Your task to perform on an android device: toggle sleep mode Image 0: 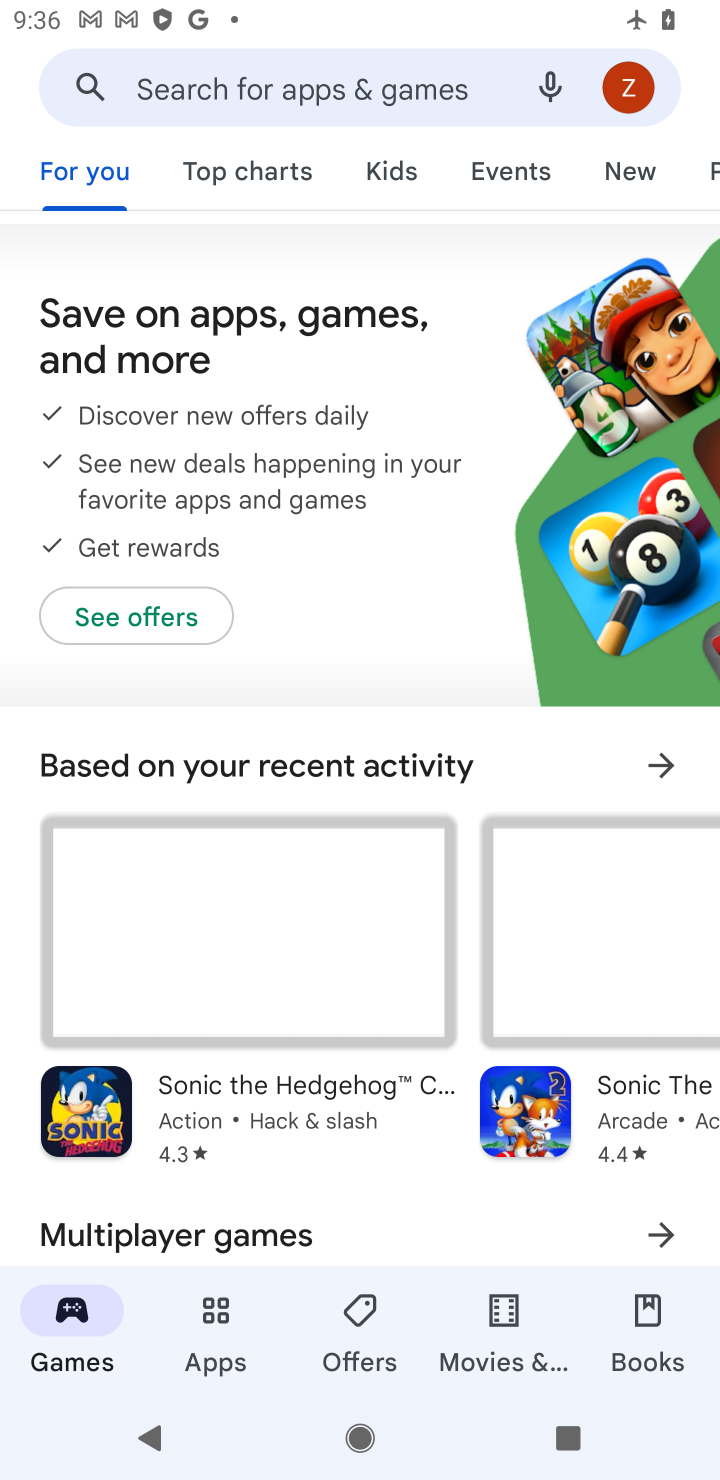
Step 0: press home button
Your task to perform on an android device: toggle sleep mode Image 1: 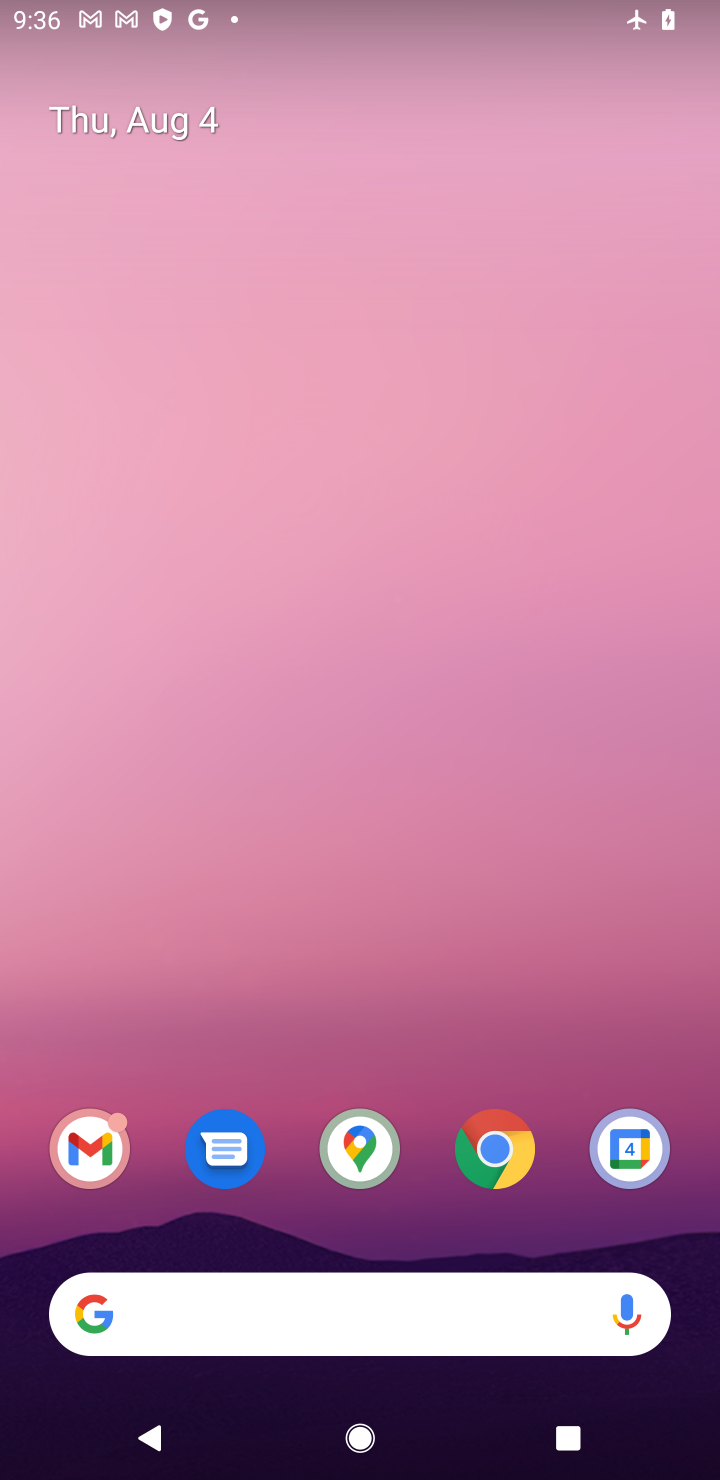
Step 1: drag from (577, 1217) to (500, 147)
Your task to perform on an android device: toggle sleep mode Image 2: 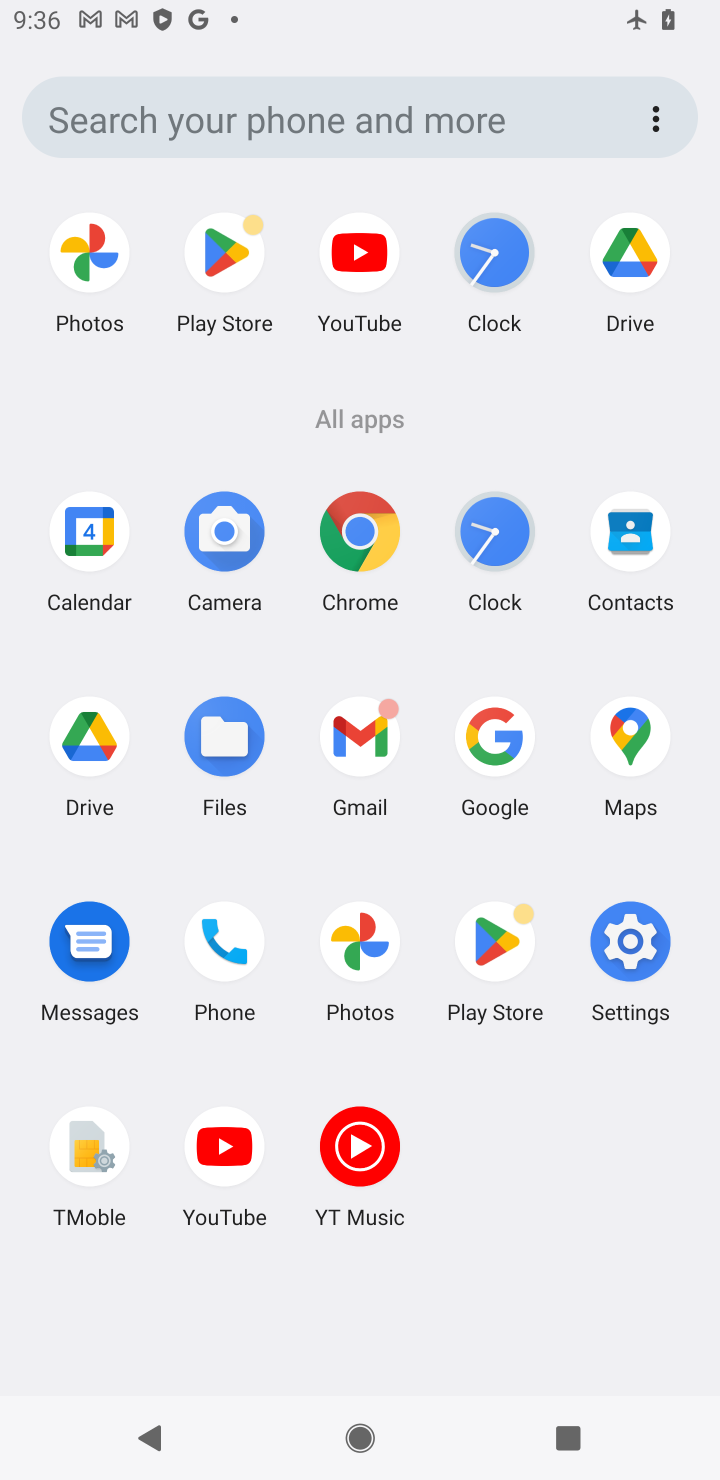
Step 2: click (626, 945)
Your task to perform on an android device: toggle sleep mode Image 3: 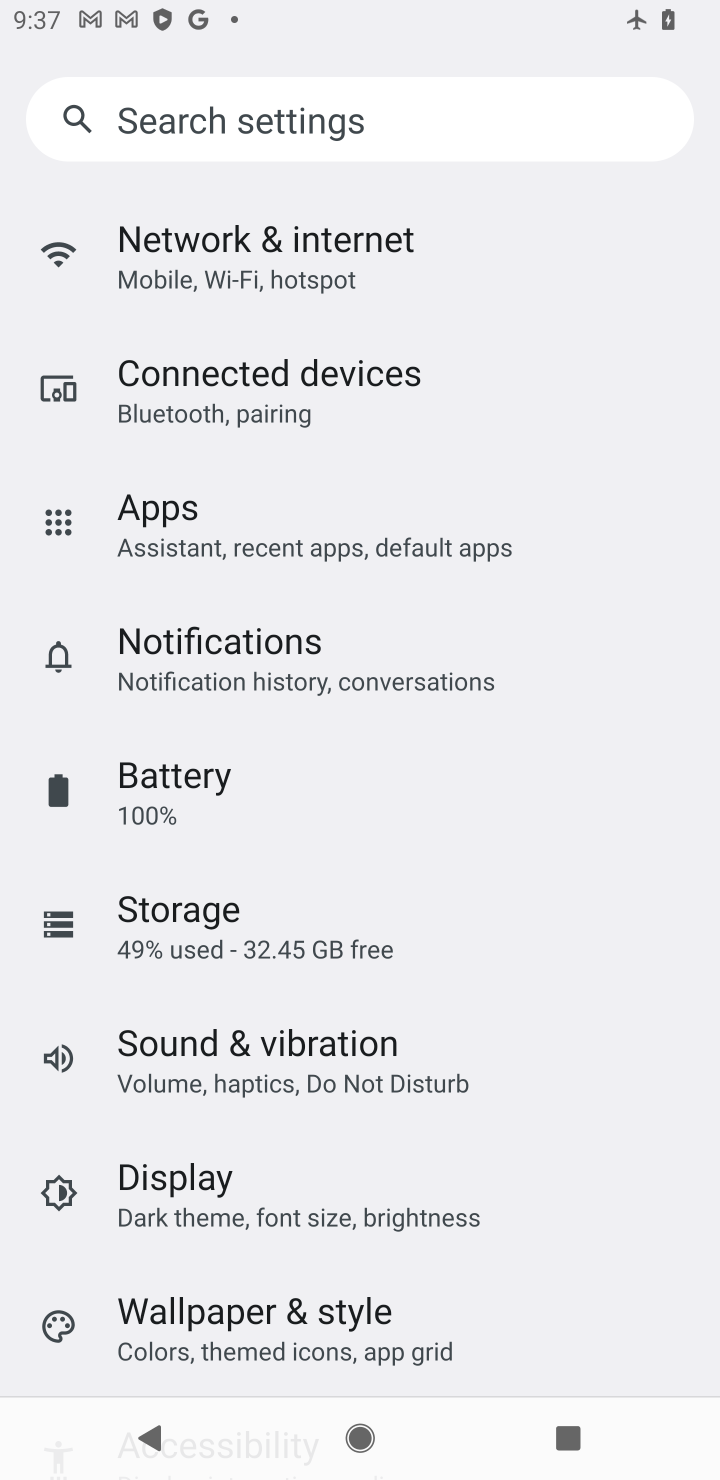
Step 3: click (168, 1184)
Your task to perform on an android device: toggle sleep mode Image 4: 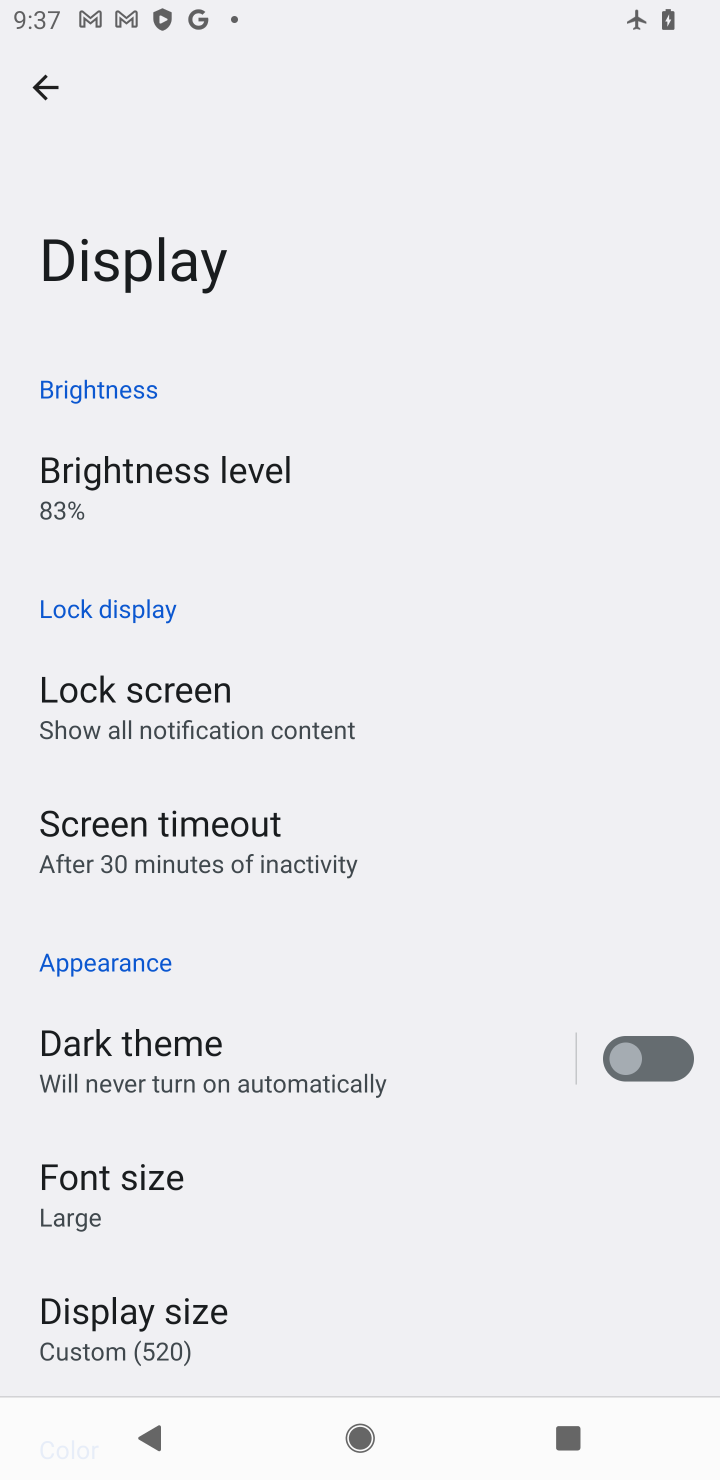
Step 4: task complete